Your task to perform on an android device: Search for good Italian restaurants on Maps Image 0: 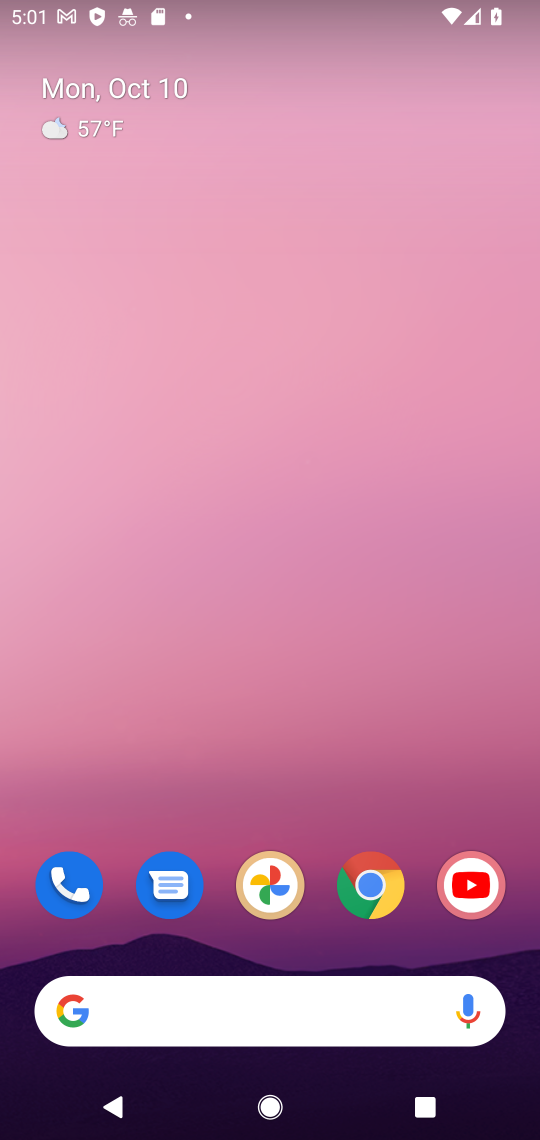
Step 0: drag from (191, 702) to (130, 145)
Your task to perform on an android device: Search for good Italian restaurants on Maps Image 1: 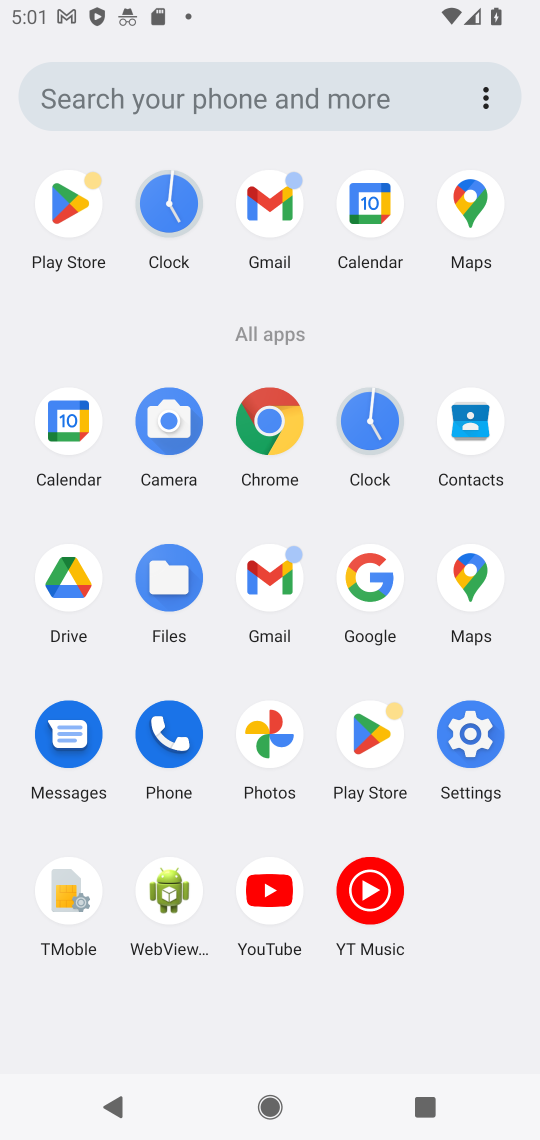
Step 1: click (452, 582)
Your task to perform on an android device: Search for good Italian restaurants on Maps Image 2: 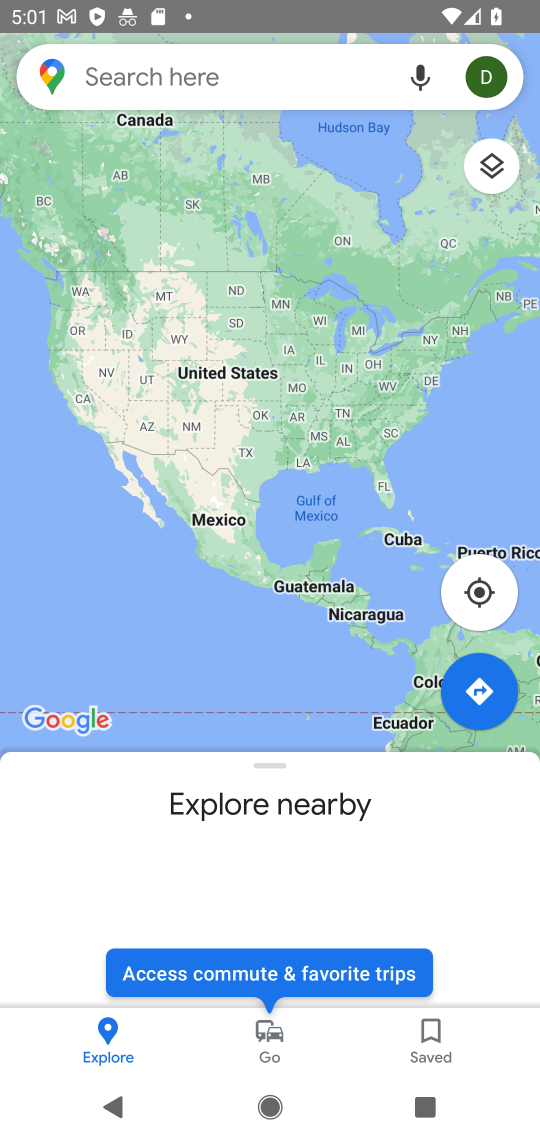
Step 2: click (172, 58)
Your task to perform on an android device: Search for good Italian restaurants on Maps Image 3: 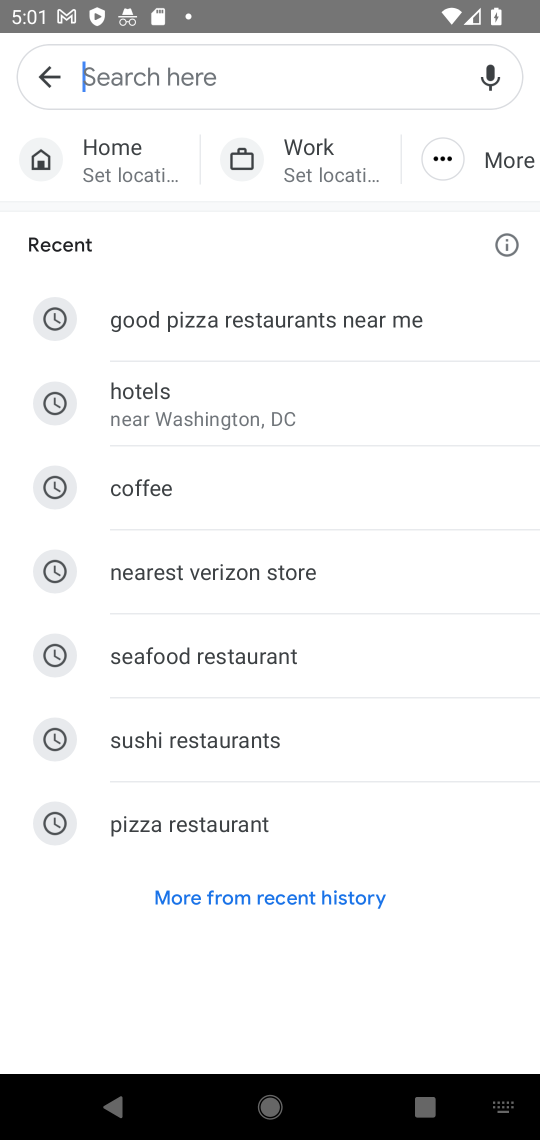
Step 3: type "good italian"
Your task to perform on an android device: Search for good Italian restaurants on Maps Image 4: 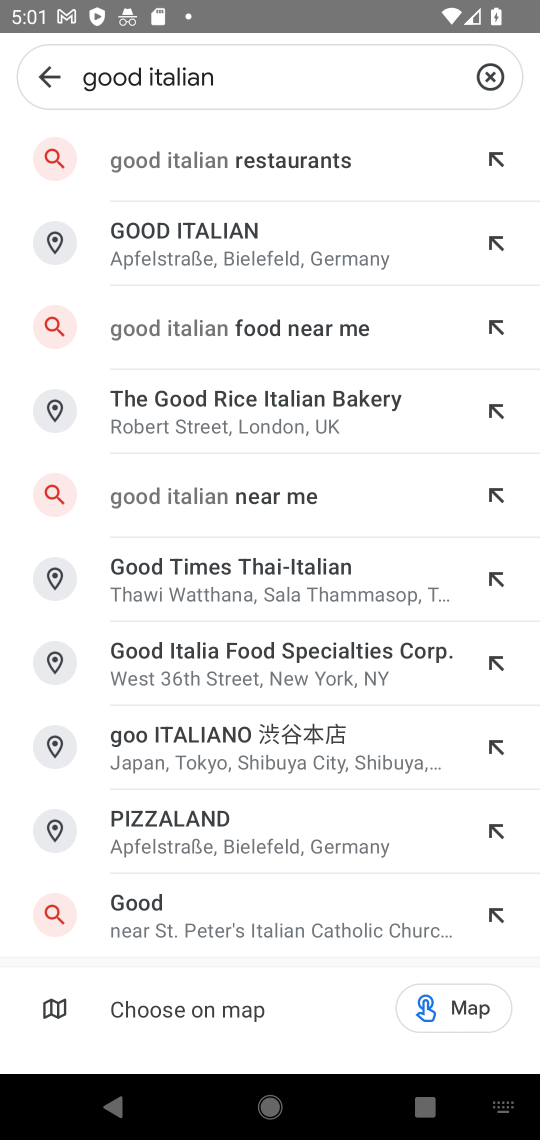
Step 4: click (289, 175)
Your task to perform on an android device: Search for good Italian restaurants on Maps Image 5: 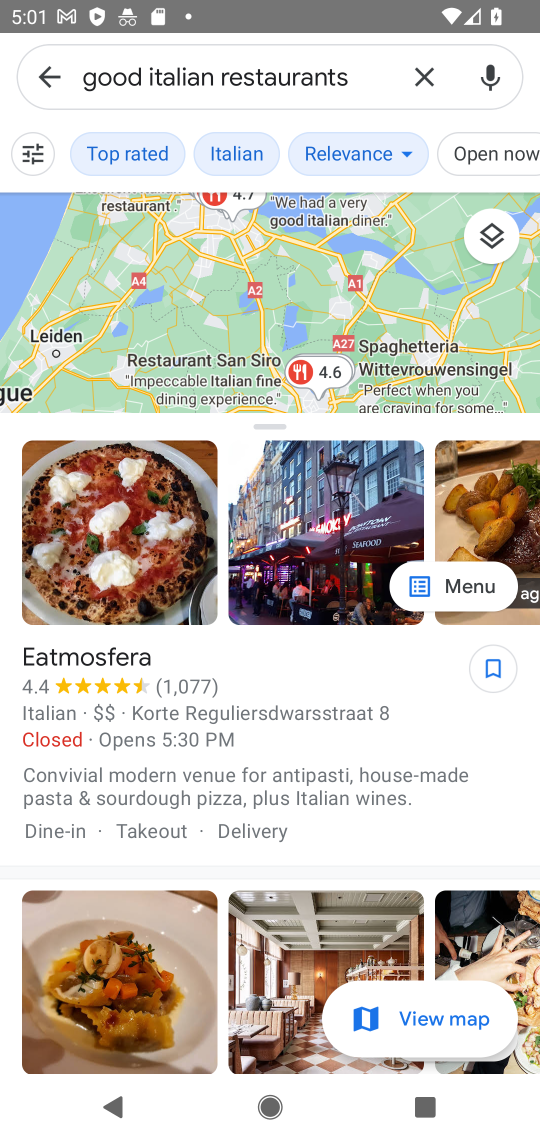
Step 5: task complete